Your task to perform on an android device: Open Google Image 0: 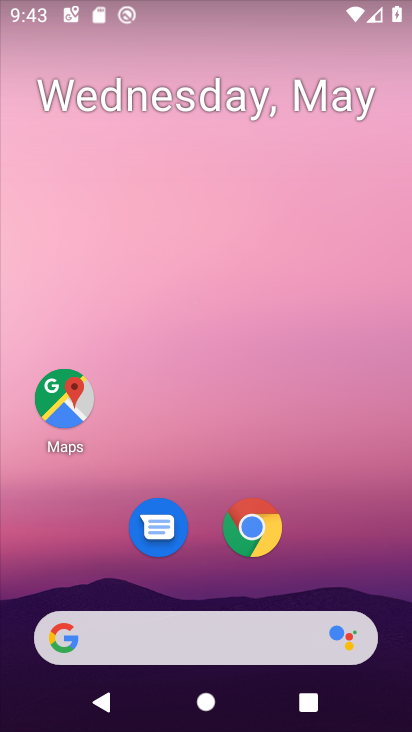
Step 0: drag from (199, 563) to (175, 127)
Your task to perform on an android device: Open Google Image 1: 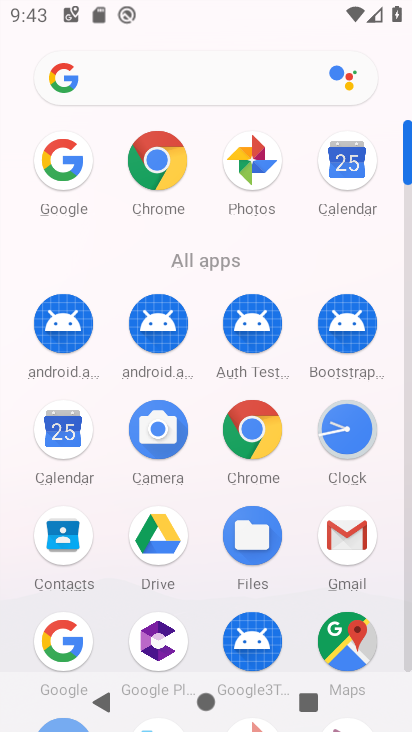
Step 1: click (72, 651)
Your task to perform on an android device: Open Google Image 2: 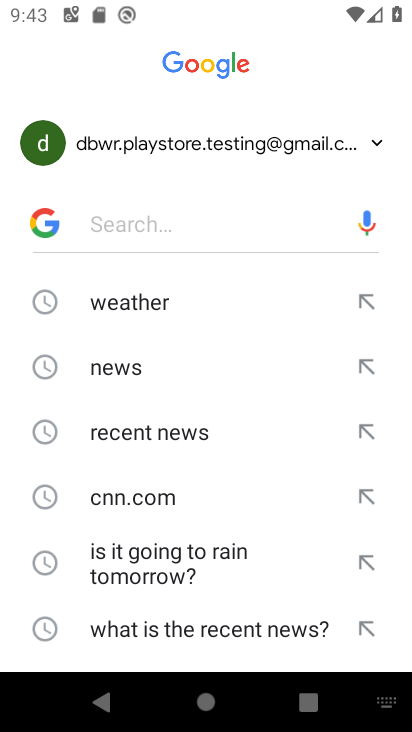
Step 2: task complete